Your task to perform on an android device: Go to Maps Image 0: 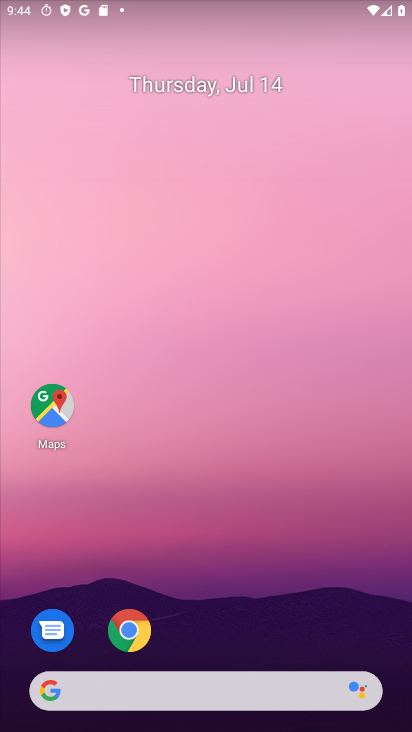
Step 0: click (138, 35)
Your task to perform on an android device: Go to Maps Image 1: 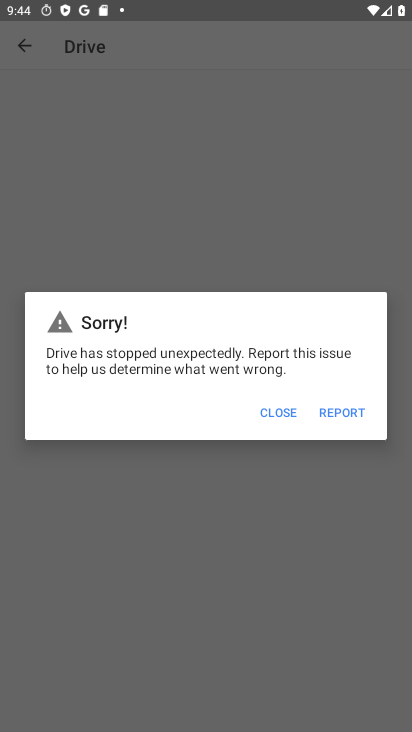
Step 1: press home button
Your task to perform on an android device: Go to Maps Image 2: 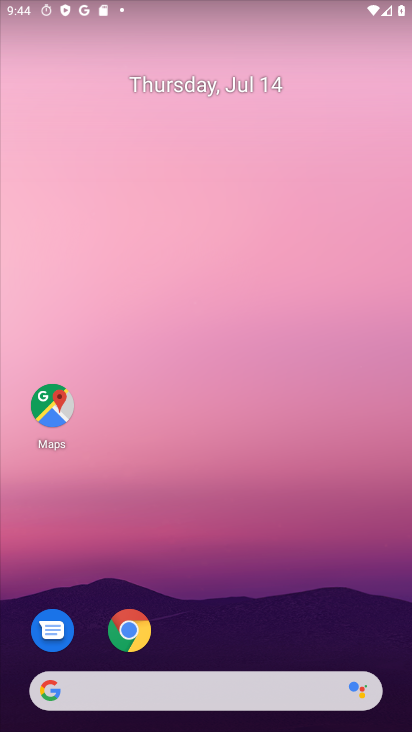
Step 2: click (59, 410)
Your task to perform on an android device: Go to Maps Image 3: 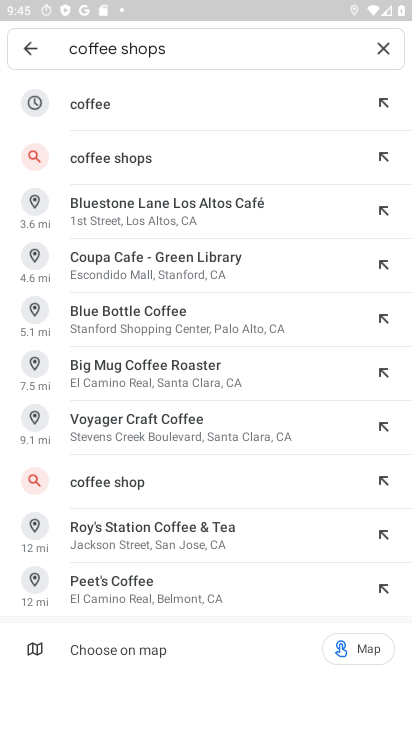
Step 3: click (22, 50)
Your task to perform on an android device: Go to Maps Image 4: 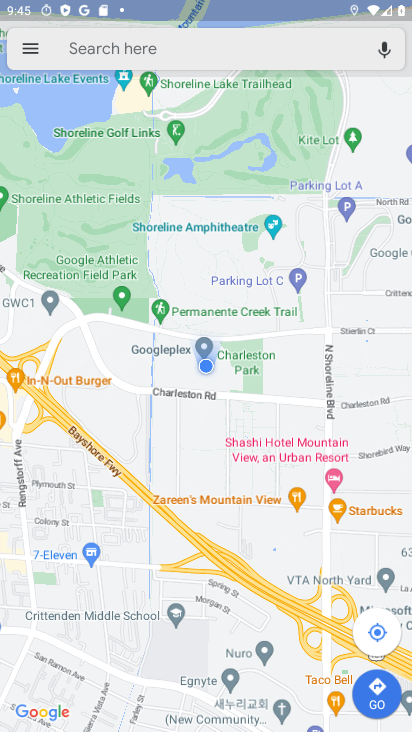
Step 4: task complete